Your task to perform on an android device: Search for Mexican restaurants on Maps Image 0: 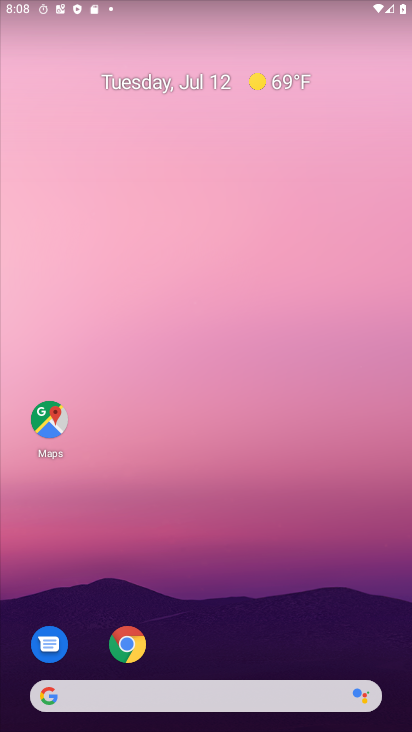
Step 0: press home button
Your task to perform on an android device: Search for Mexican restaurants on Maps Image 1: 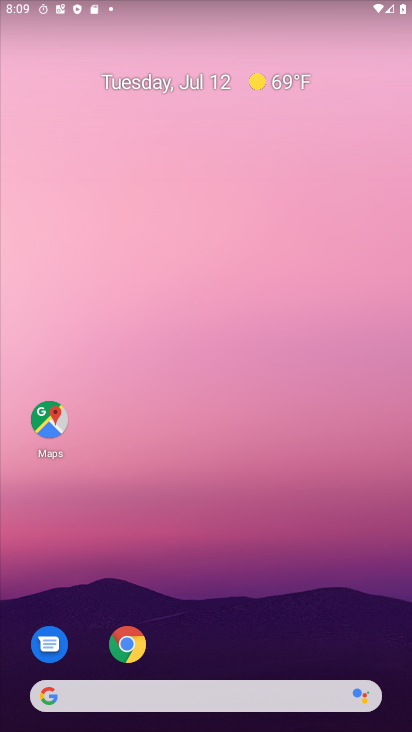
Step 1: click (53, 408)
Your task to perform on an android device: Search for Mexican restaurants on Maps Image 2: 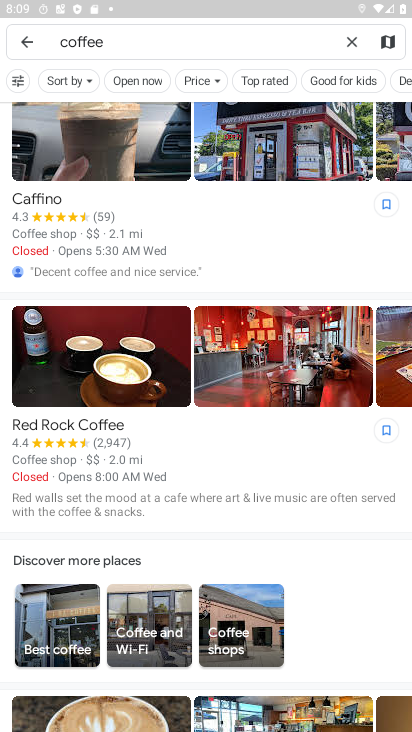
Step 2: click (349, 40)
Your task to perform on an android device: Search for Mexican restaurants on Maps Image 3: 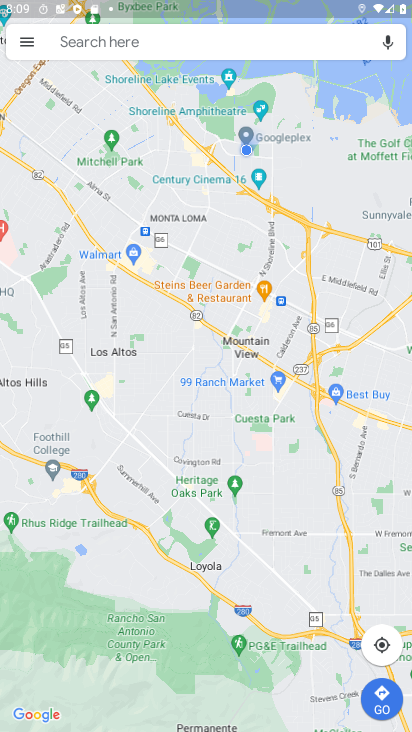
Step 3: click (117, 39)
Your task to perform on an android device: Search for Mexican restaurants on Maps Image 4: 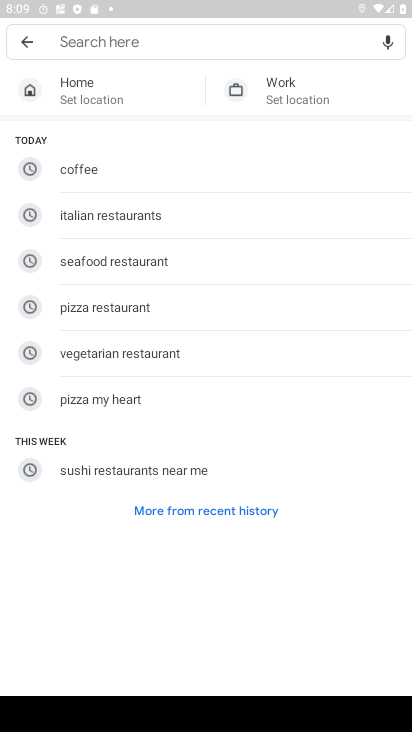
Step 4: type "mexican restaurant"
Your task to perform on an android device: Search for Mexican restaurants on Maps Image 5: 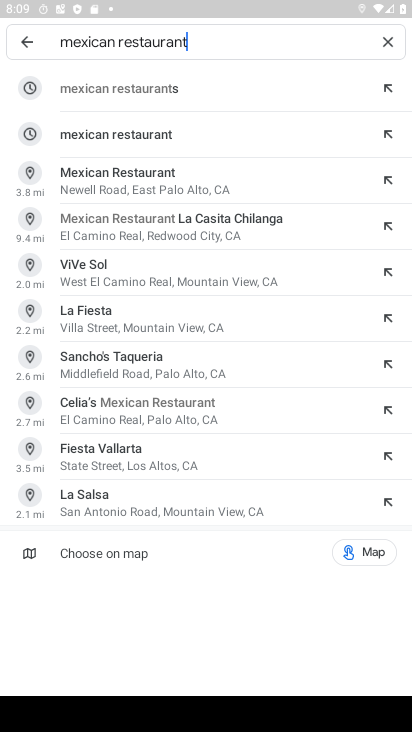
Step 5: click (162, 131)
Your task to perform on an android device: Search for Mexican restaurants on Maps Image 6: 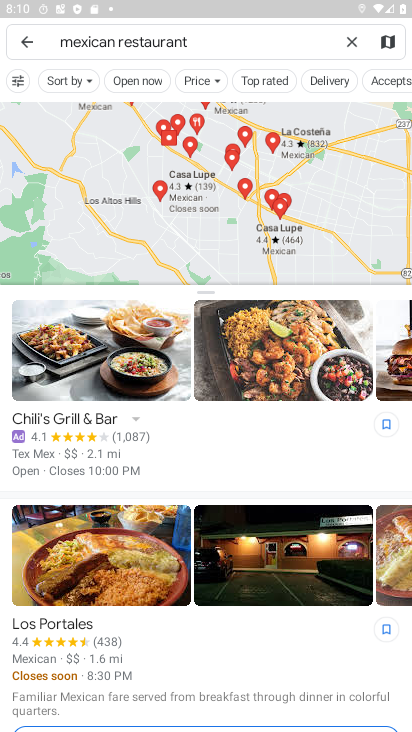
Step 6: task complete